Your task to perform on an android device: change the clock display to show seconds Image 0: 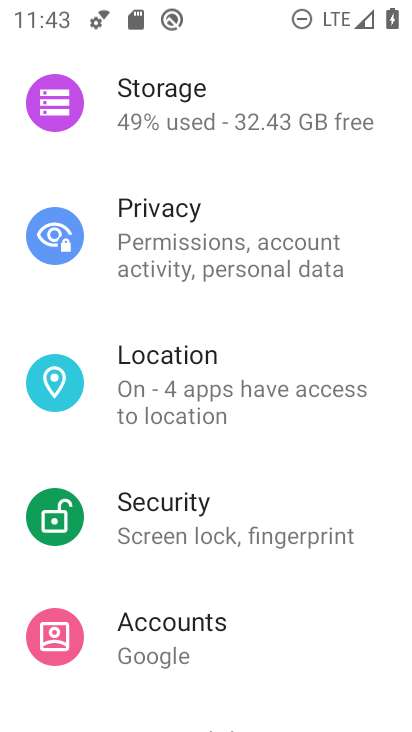
Step 0: press home button
Your task to perform on an android device: change the clock display to show seconds Image 1: 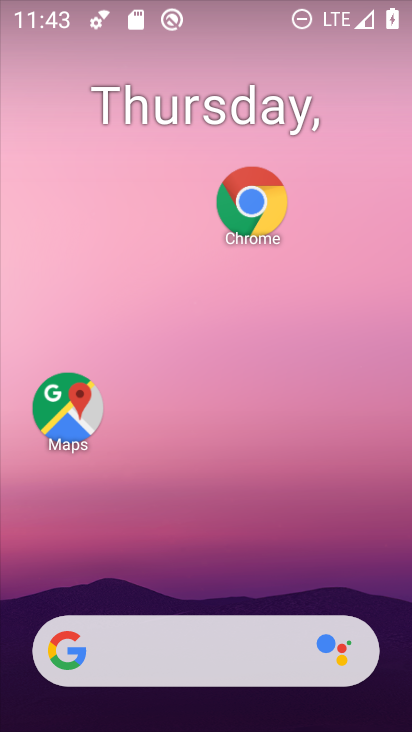
Step 1: drag from (202, 613) to (177, 6)
Your task to perform on an android device: change the clock display to show seconds Image 2: 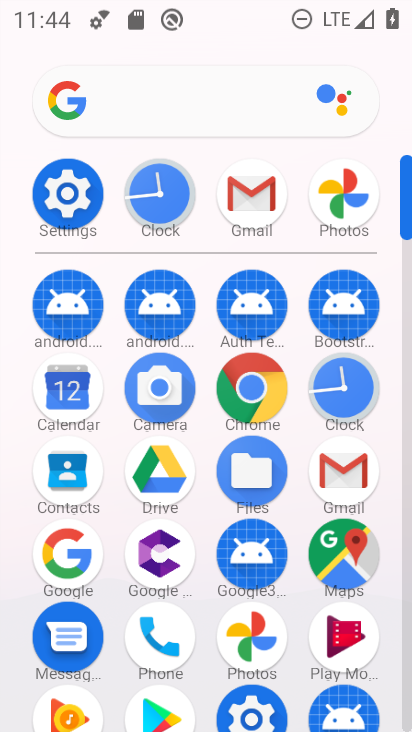
Step 2: click (328, 371)
Your task to perform on an android device: change the clock display to show seconds Image 3: 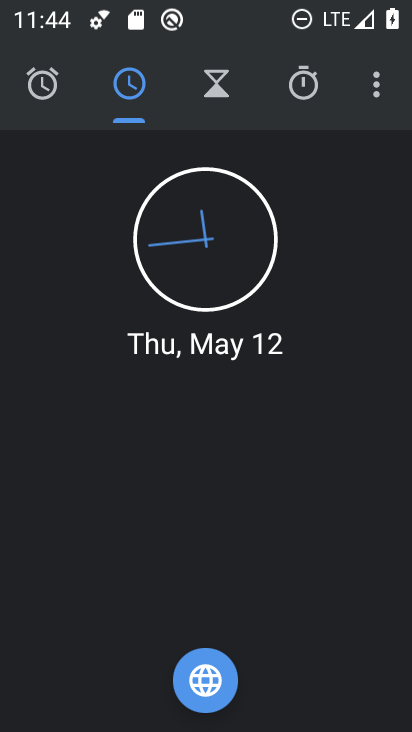
Step 3: click (372, 93)
Your task to perform on an android device: change the clock display to show seconds Image 4: 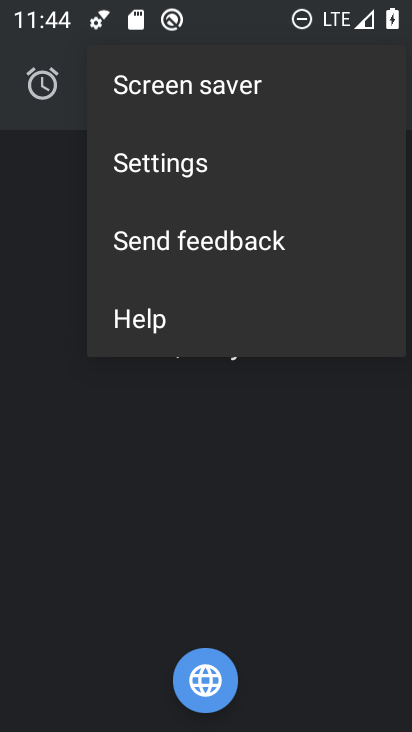
Step 4: click (170, 175)
Your task to perform on an android device: change the clock display to show seconds Image 5: 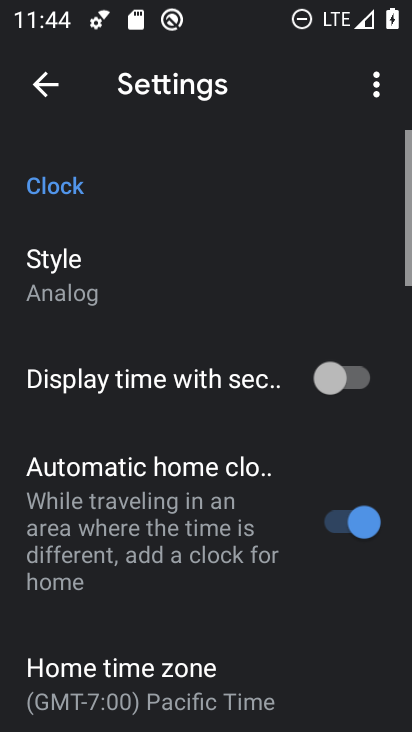
Step 5: click (74, 284)
Your task to perform on an android device: change the clock display to show seconds Image 6: 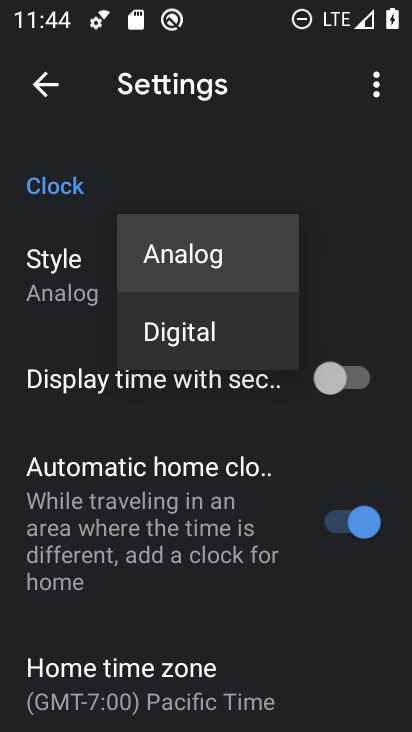
Step 6: click (331, 349)
Your task to perform on an android device: change the clock display to show seconds Image 7: 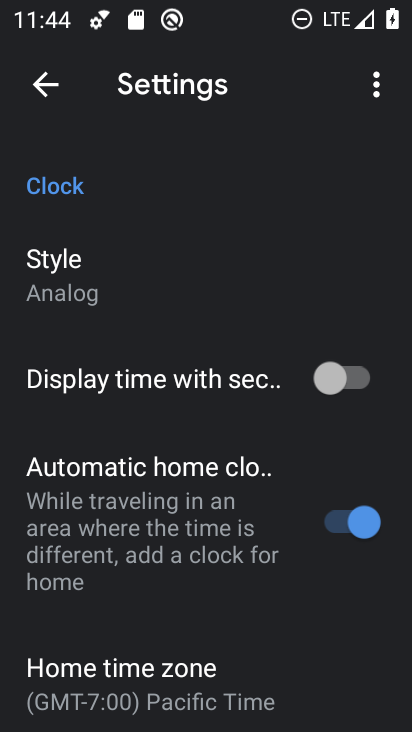
Step 7: click (341, 393)
Your task to perform on an android device: change the clock display to show seconds Image 8: 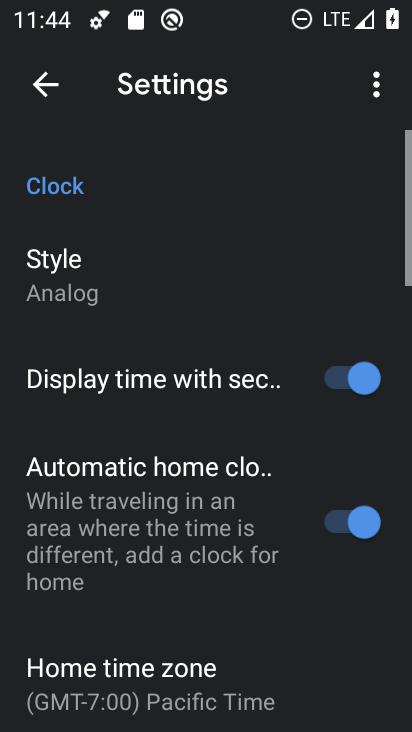
Step 8: task complete